Your task to perform on an android device: Open the phone app and click the voicemail tab. Image 0: 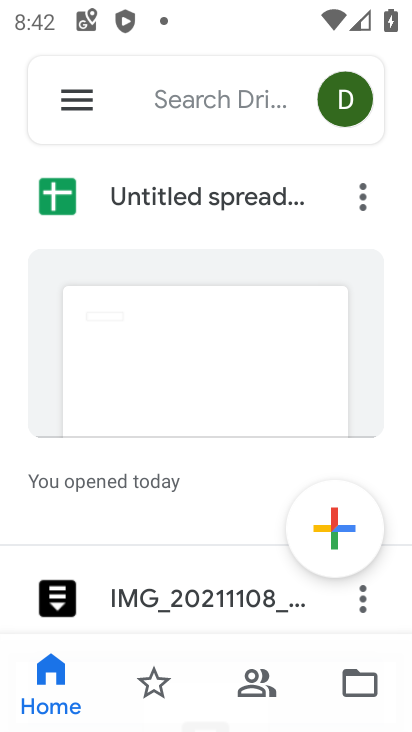
Step 0: press home button
Your task to perform on an android device: Open the phone app and click the voicemail tab. Image 1: 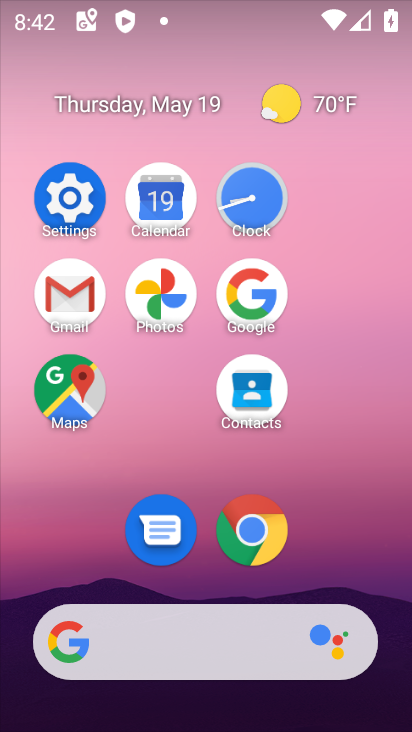
Step 1: drag from (301, 556) to (266, 142)
Your task to perform on an android device: Open the phone app and click the voicemail tab. Image 2: 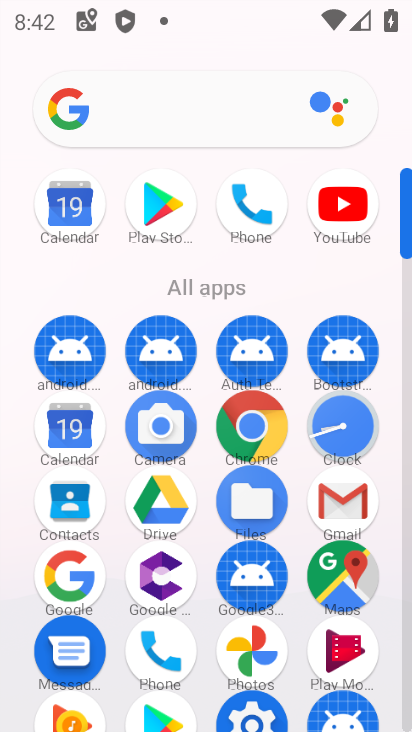
Step 2: click (269, 202)
Your task to perform on an android device: Open the phone app and click the voicemail tab. Image 3: 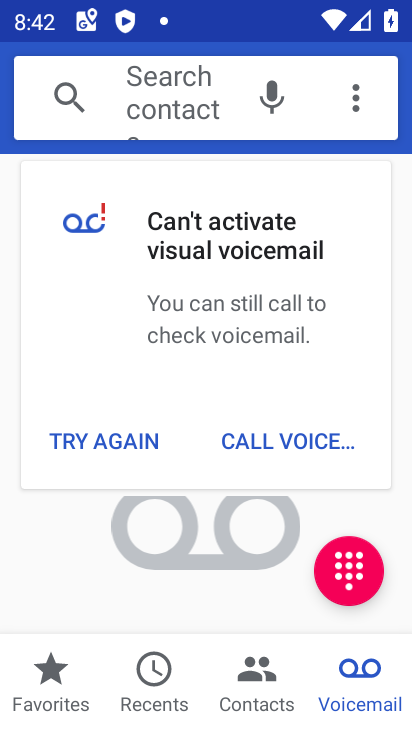
Step 3: click (381, 697)
Your task to perform on an android device: Open the phone app and click the voicemail tab. Image 4: 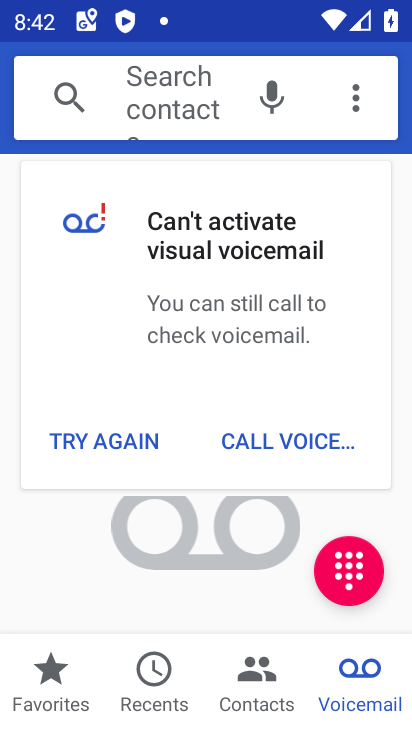
Step 4: task complete